Your task to perform on an android device: delete the emails in spam in the gmail app Image 0: 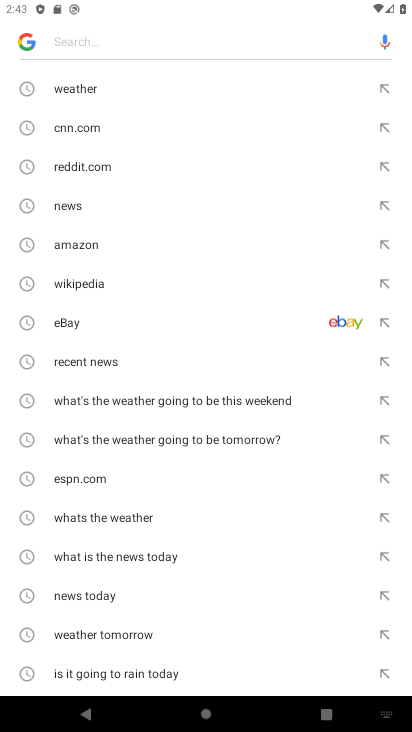
Step 0: press home button
Your task to perform on an android device: delete the emails in spam in the gmail app Image 1: 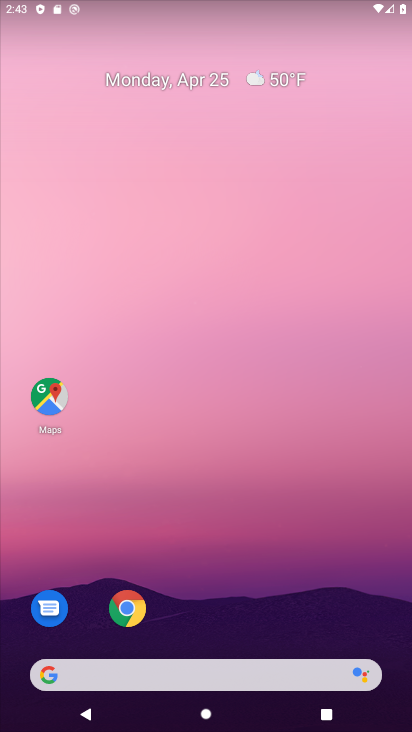
Step 1: drag from (208, 620) to (183, 208)
Your task to perform on an android device: delete the emails in spam in the gmail app Image 2: 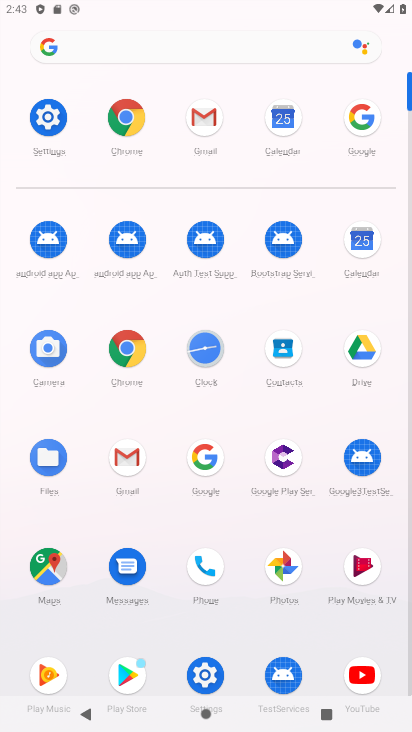
Step 2: click (208, 124)
Your task to perform on an android device: delete the emails in spam in the gmail app Image 3: 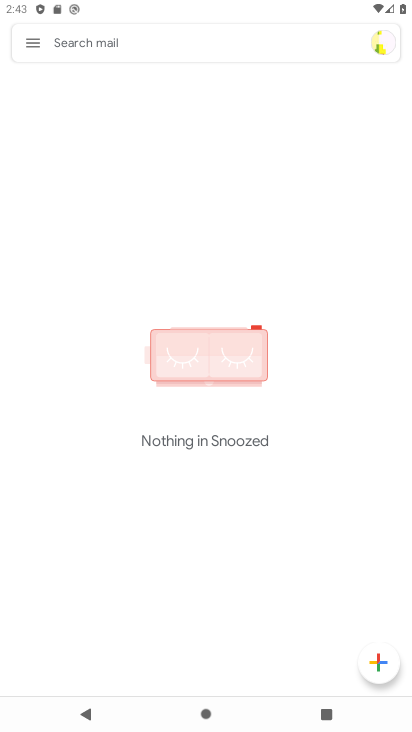
Step 3: click (30, 40)
Your task to perform on an android device: delete the emails in spam in the gmail app Image 4: 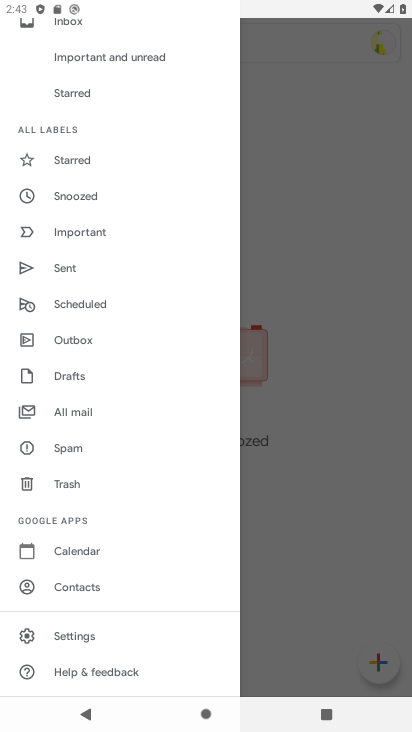
Step 4: click (73, 454)
Your task to perform on an android device: delete the emails in spam in the gmail app Image 5: 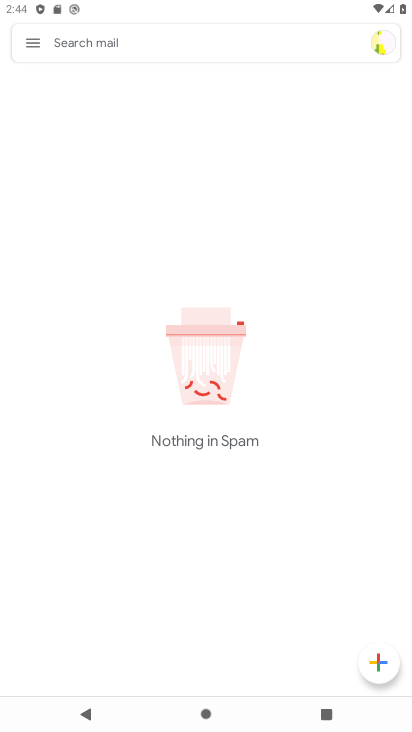
Step 5: task complete